Your task to perform on an android device: change notification settings in the gmail app Image 0: 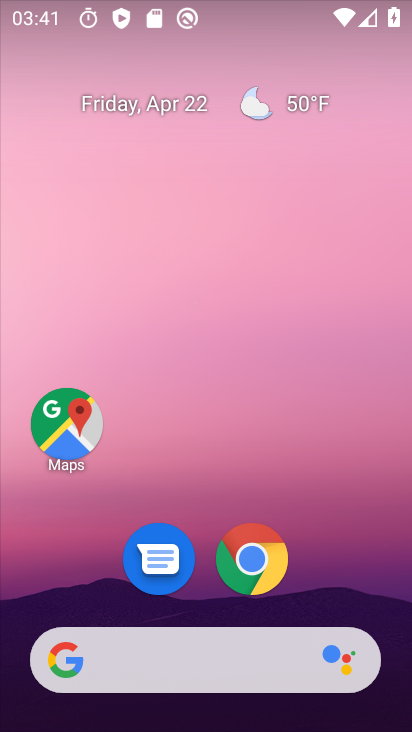
Step 0: drag from (86, 624) to (266, 94)
Your task to perform on an android device: change notification settings in the gmail app Image 1: 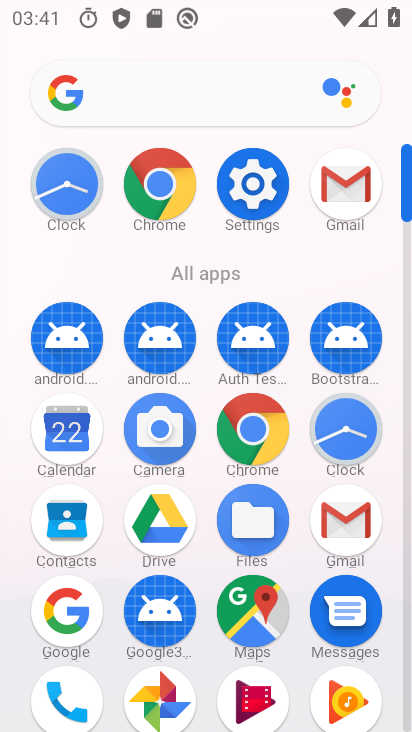
Step 1: click (355, 515)
Your task to perform on an android device: change notification settings in the gmail app Image 2: 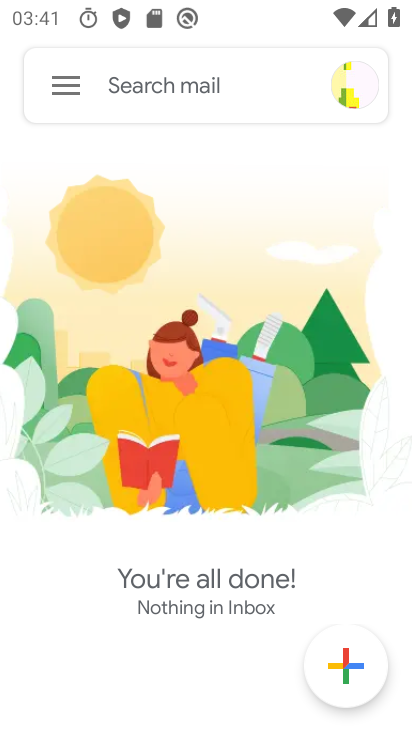
Step 2: click (75, 82)
Your task to perform on an android device: change notification settings in the gmail app Image 3: 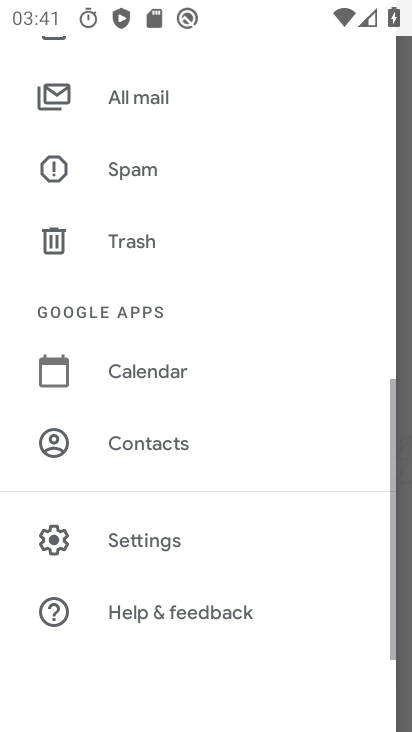
Step 3: click (195, 550)
Your task to perform on an android device: change notification settings in the gmail app Image 4: 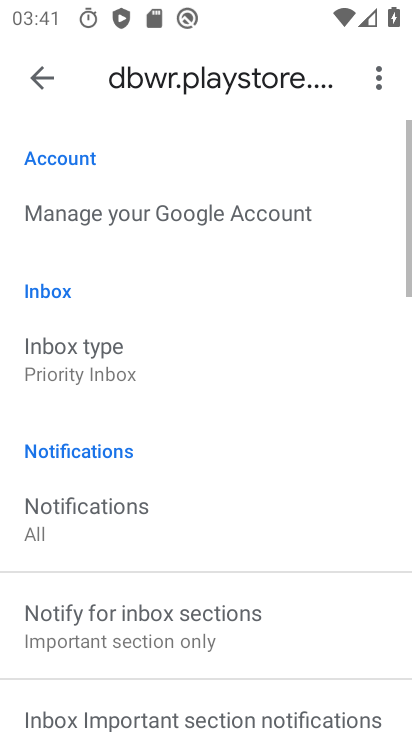
Step 4: drag from (240, 519) to (349, 228)
Your task to perform on an android device: change notification settings in the gmail app Image 5: 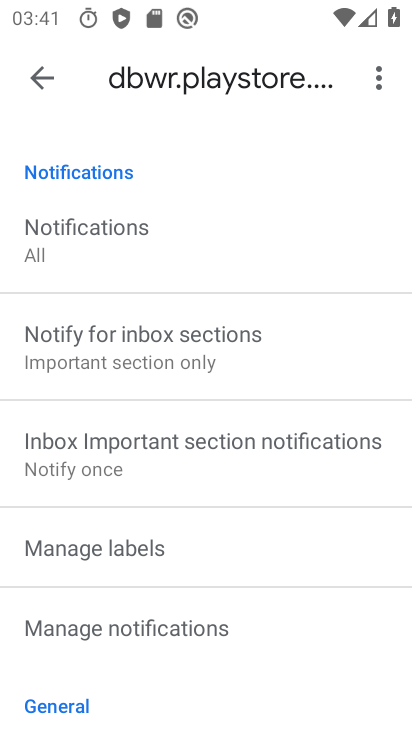
Step 5: click (205, 619)
Your task to perform on an android device: change notification settings in the gmail app Image 6: 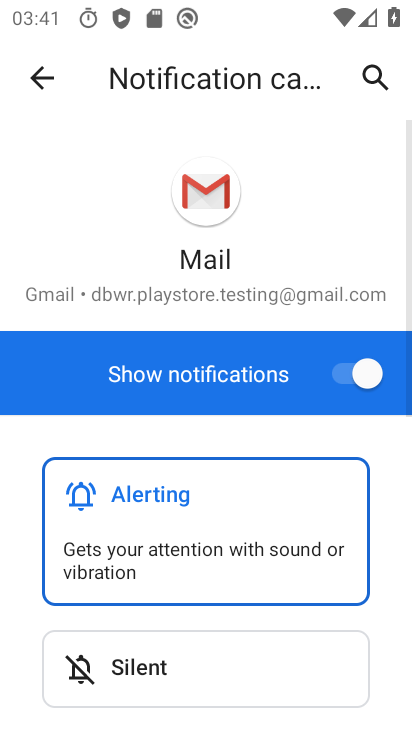
Step 6: click (239, 653)
Your task to perform on an android device: change notification settings in the gmail app Image 7: 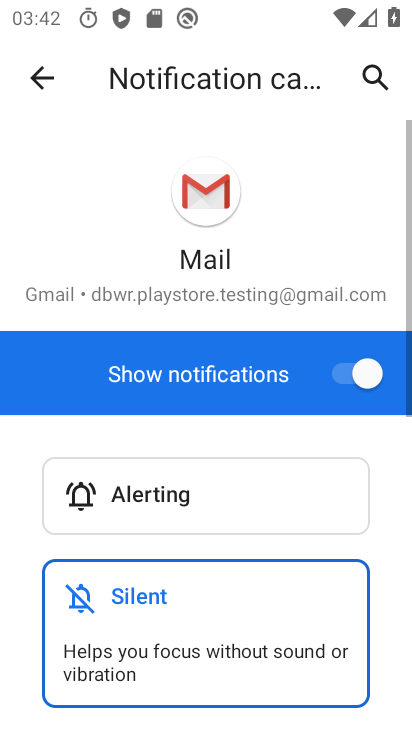
Step 7: drag from (241, 625) to (352, 140)
Your task to perform on an android device: change notification settings in the gmail app Image 8: 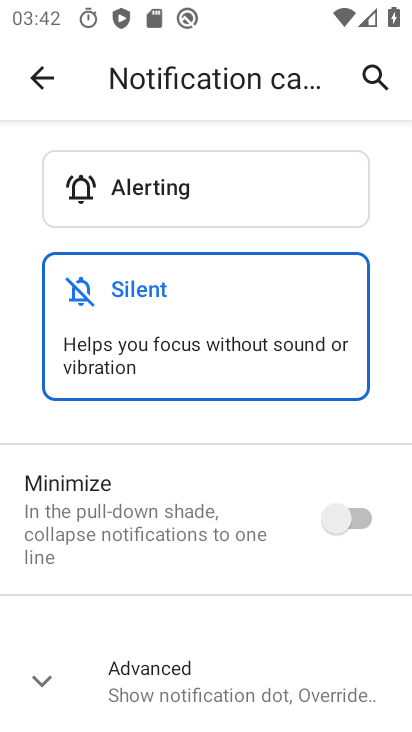
Step 8: click (370, 519)
Your task to perform on an android device: change notification settings in the gmail app Image 9: 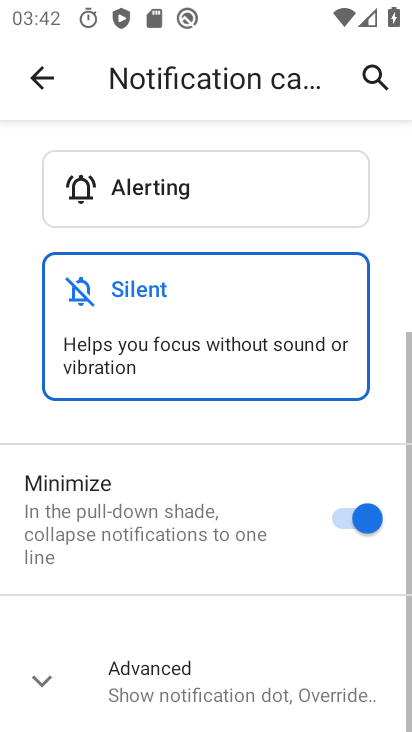
Step 9: click (283, 694)
Your task to perform on an android device: change notification settings in the gmail app Image 10: 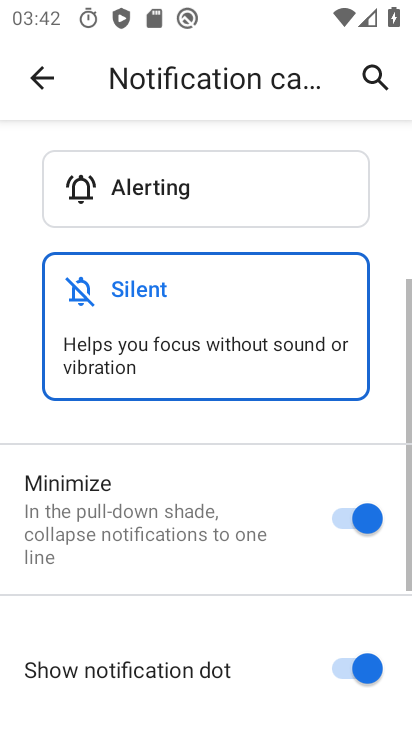
Step 10: drag from (299, 625) to (408, 191)
Your task to perform on an android device: change notification settings in the gmail app Image 11: 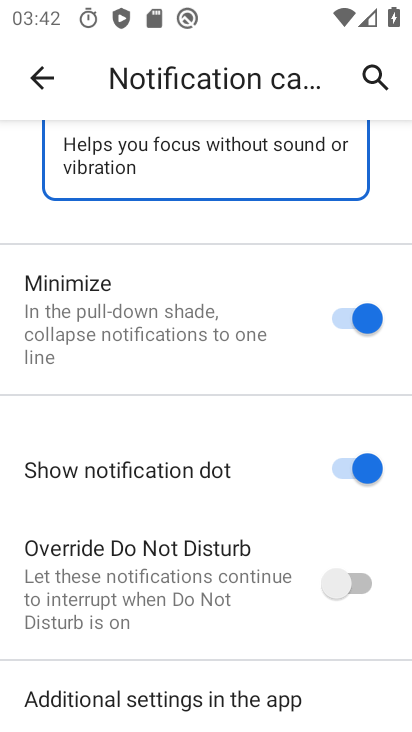
Step 11: click (346, 460)
Your task to perform on an android device: change notification settings in the gmail app Image 12: 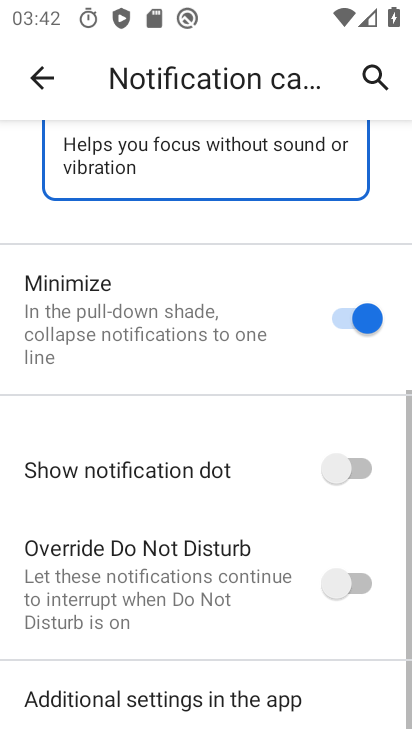
Step 12: click (366, 590)
Your task to perform on an android device: change notification settings in the gmail app Image 13: 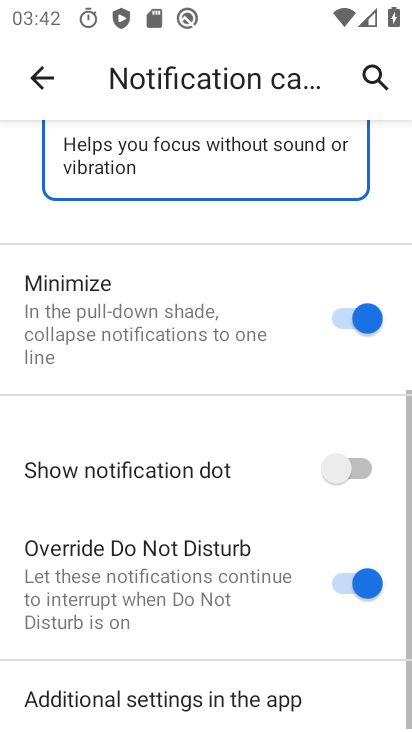
Step 13: drag from (293, 610) to (411, 192)
Your task to perform on an android device: change notification settings in the gmail app Image 14: 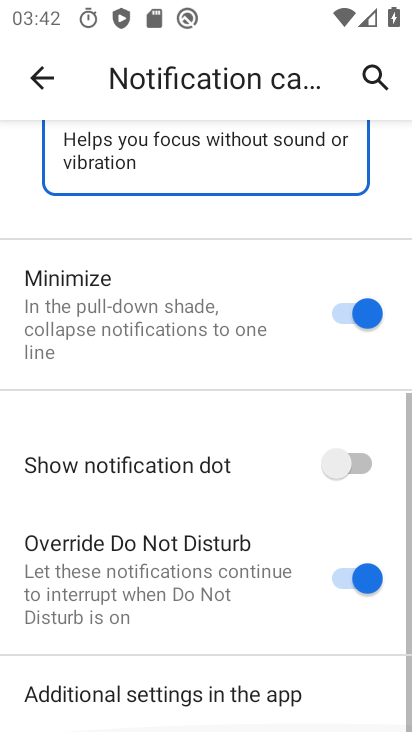
Step 14: click (252, 692)
Your task to perform on an android device: change notification settings in the gmail app Image 15: 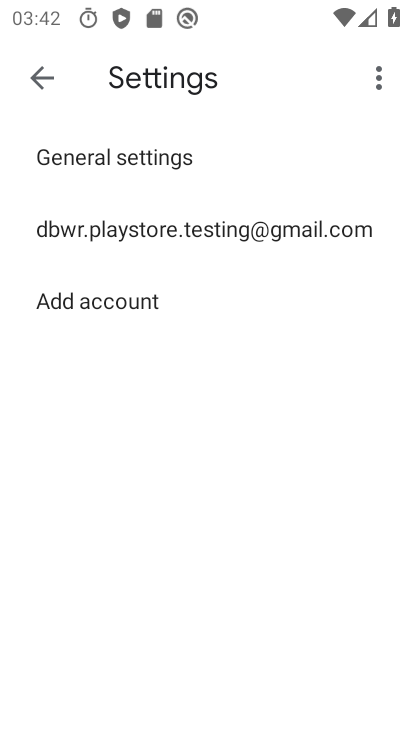
Step 15: task complete